Your task to perform on an android device: Open eBay Image 0: 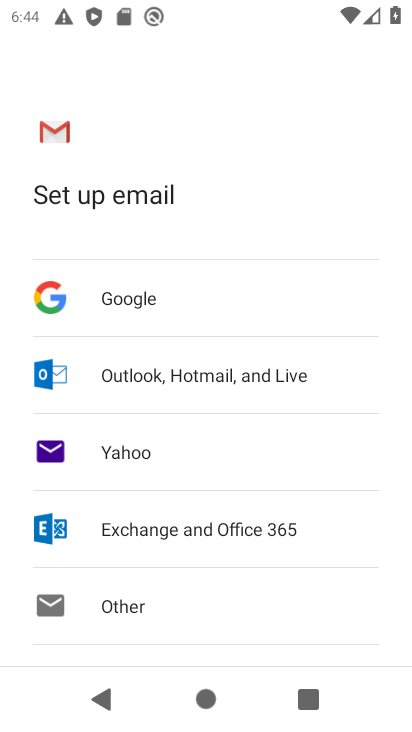
Step 0: press home button
Your task to perform on an android device: Open eBay Image 1: 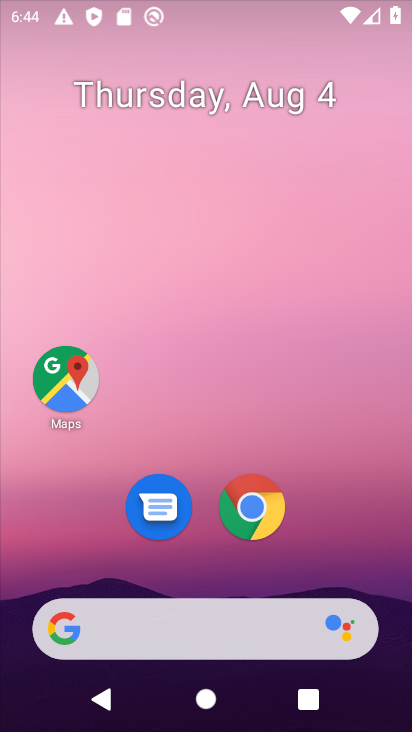
Step 1: drag from (391, 630) to (257, 6)
Your task to perform on an android device: Open eBay Image 2: 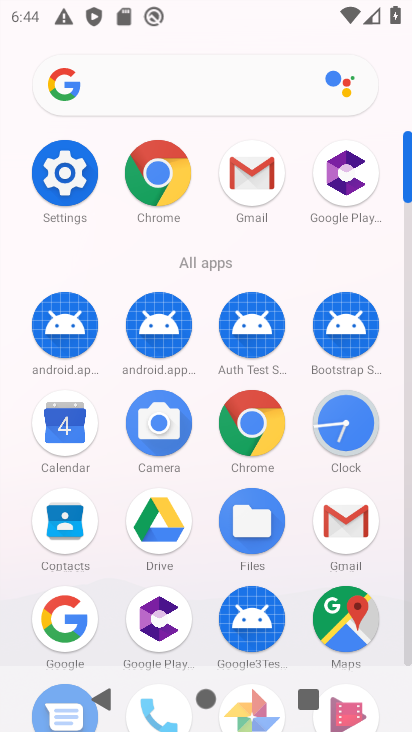
Step 2: click (49, 620)
Your task to perform on an android device: Open eBay Image 3: 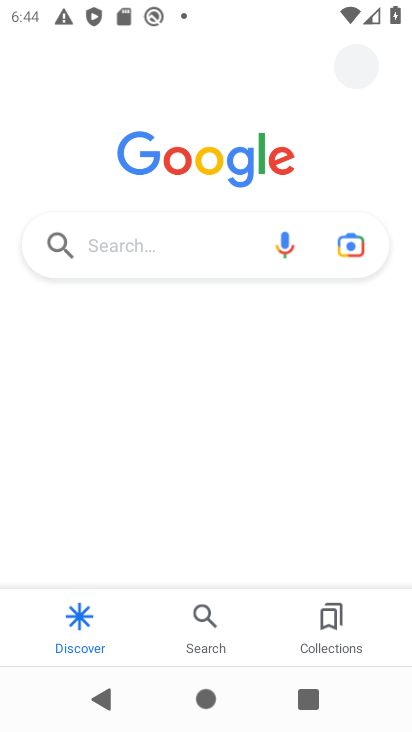
Step 3: click (144, 244)
Your task to perform on an android device: Open eBay Image 4: 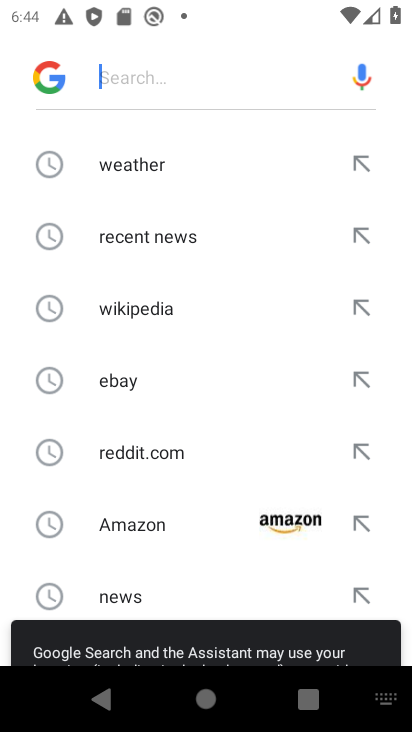
Step 4: drag from (144, 588) to (178, 419)
Your task to perform on an android device: Open eBay Image 5: 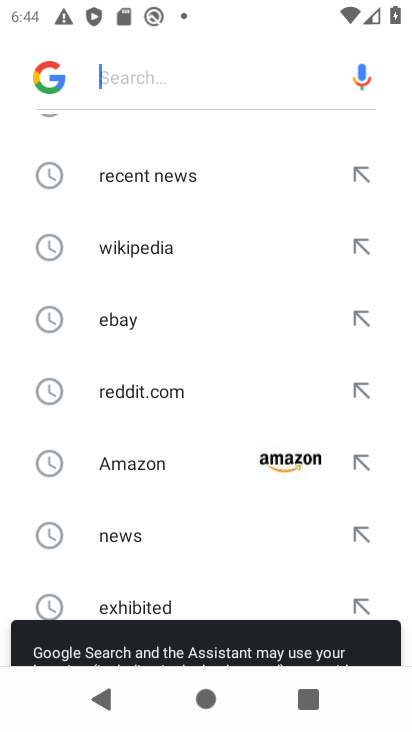
Step 5: click (134, 310)
Your task to perform on an android device: Open eBay Image 6: 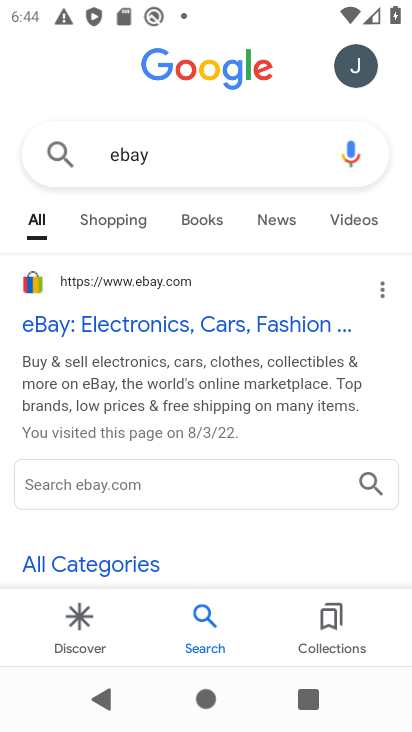
Step 6: task complete